Your task to perform on an android device: Search for flights from Helsinki to Seoul Image 0: 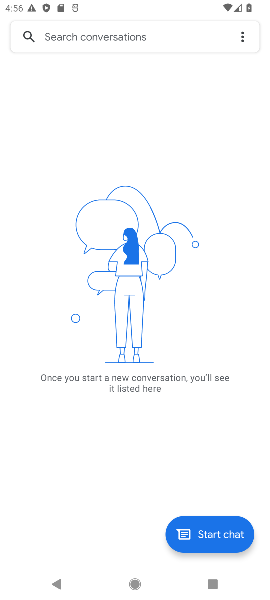
Step 0: click (133, 590)
Your task to perform on an android device: Search for flights from Helsinki to Seoul Image 1: 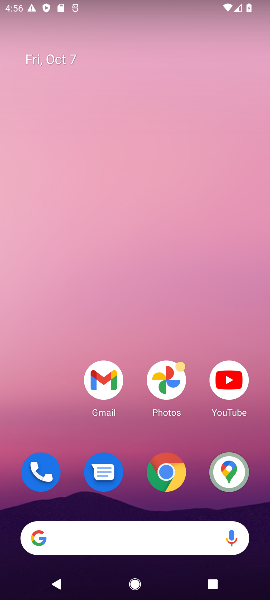
Step 1: click (165, 478)
Your task to perform on an android device: Search for flights from Helsinki to Seoul Image 2: 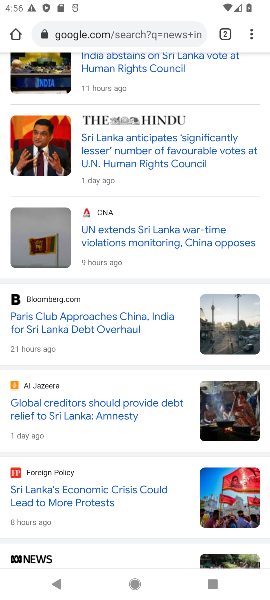
Step 2: click (92, 35)
Your task to perform on an android device: Search for flights from Helsinki to Seoul Image 3: 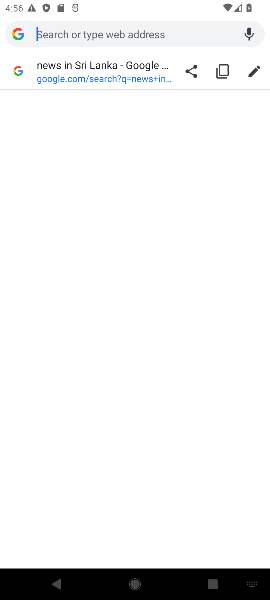
Step 3: type "flights from Helsinki to Seoul"
Your task to perform on an android device: Search for flights from Helsinki to Seoul Image 4: 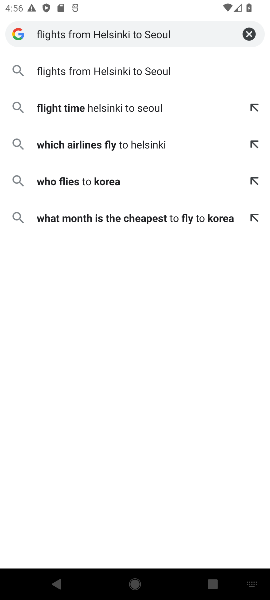
Step 4: click (155, 67)
Your task to perform on an android device: Search for flights from Helsinki to Seoul Image 5: 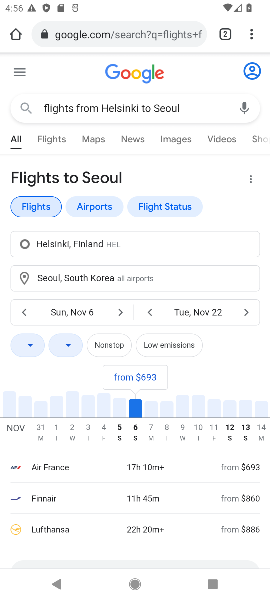
Step 5: click (201, 160)
Your task to perform on an android device: Search for flights from Helsinki to Seoul Image 6: 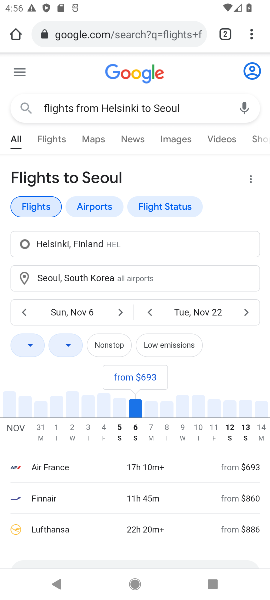
Step 6: drag from (232, 388) to (228, 176)
Your task to perform on an android device: Search for flights from Helsinki to Seoul Image 7: 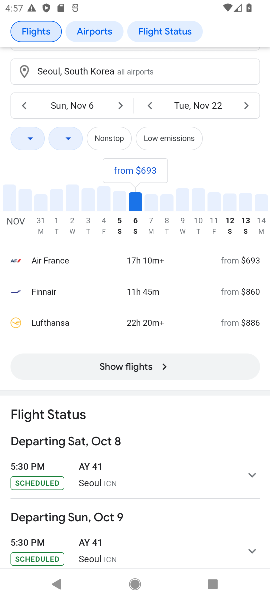
Step 7: click (125, 365)
Your task to perform on an android device: Search for flights from Helsinki to Seoul Image 8: 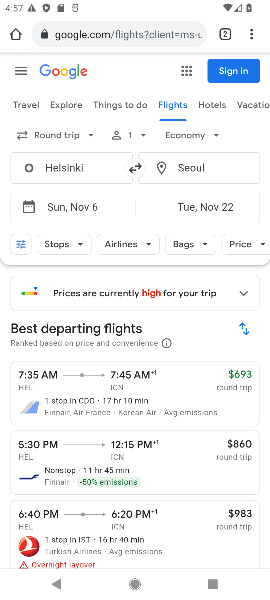
Step 8: task complete